Your task to perform on an android device: Search for the Nintendo Switch. Image 0: 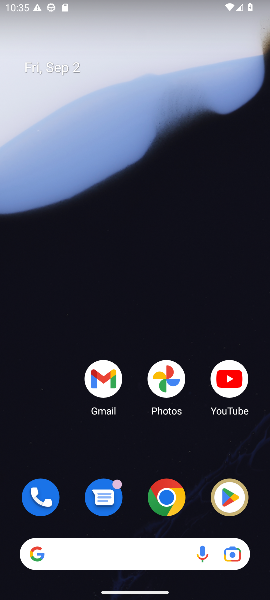
Step 0: click (172, 513)
Your task to perform on an android device: Search for the Nintendo Switch. Image 1: 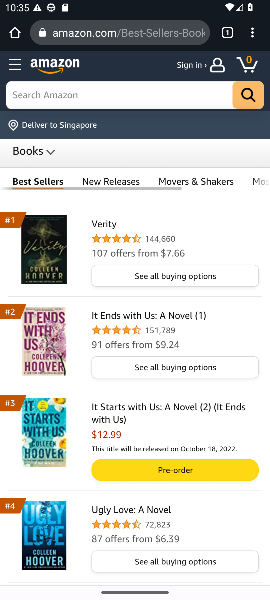
Step 1: click (144, 41)
Your task to perform on an android device: Search for the Nintendo Switch. Image 2: 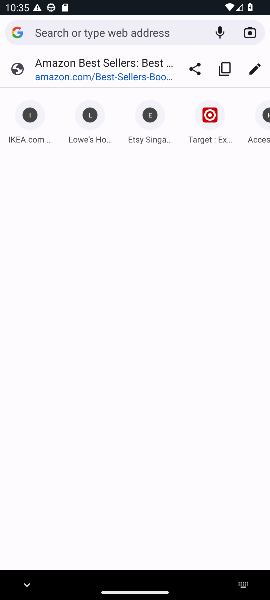
Step 2: type "nintendo switch"
Your task to perform on an android device: Search for the Nintendo Switch. Image 3: 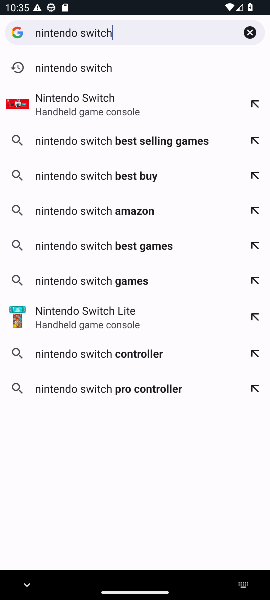
Step 3: click (88, 112)
Your task to perform on an android device: Search for the Nintendo Switch. Image 4: 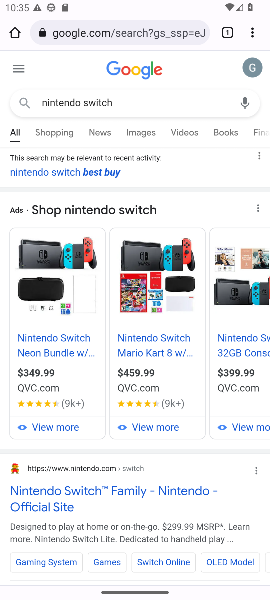
Step 4: task complete